Your task to perform on an android device: turn off javascript in the chrome app Image 0: 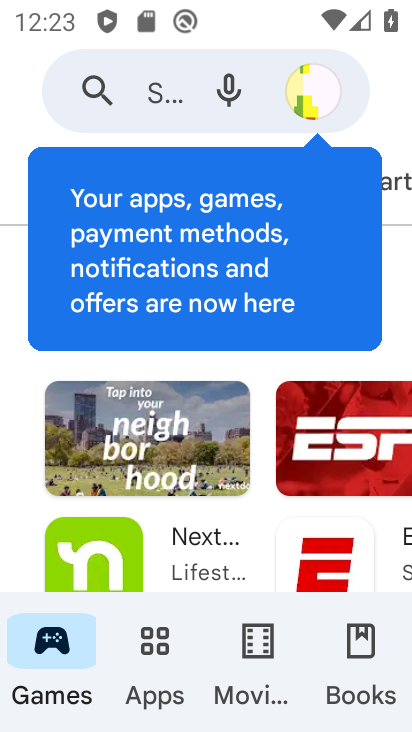
Step 0: click (326, 107)
Your task to perform on an android device: turn off javascript in the chrome app Image 1: 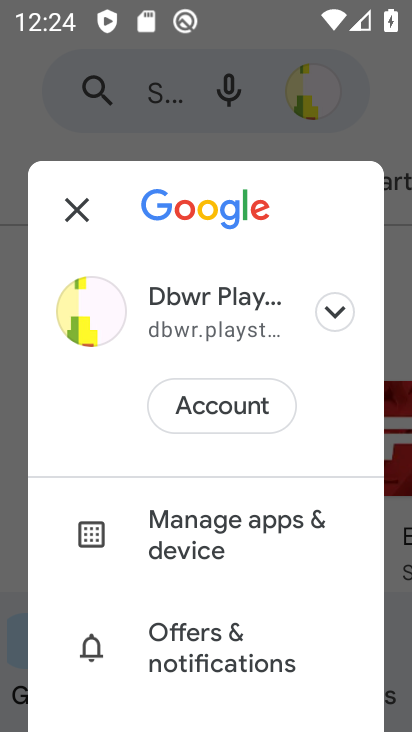
Step 1: press back button
Your task to perform on an android device: turn off javascript in the chrome app Image 2: 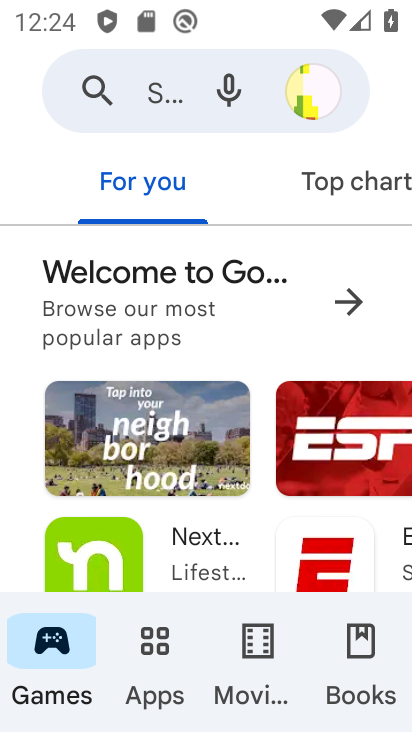
Step 2: press back button
Your task to perform on an android device: turn off javascript in the chrome app Image 3: 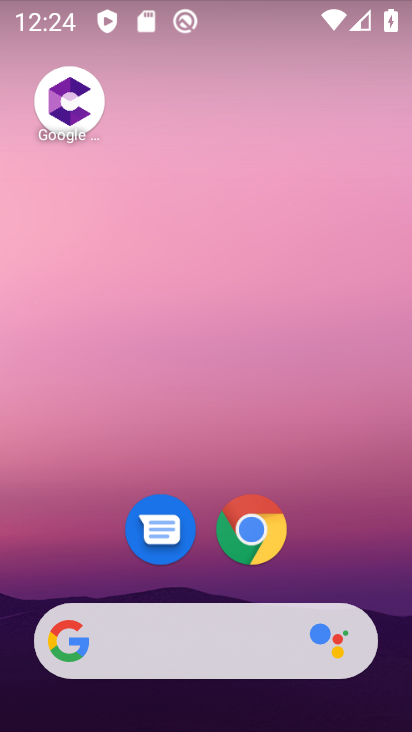
Step 3: click (255, 541)
Your task to perform on an android device: turn off javascript in the chrome app Image 4: 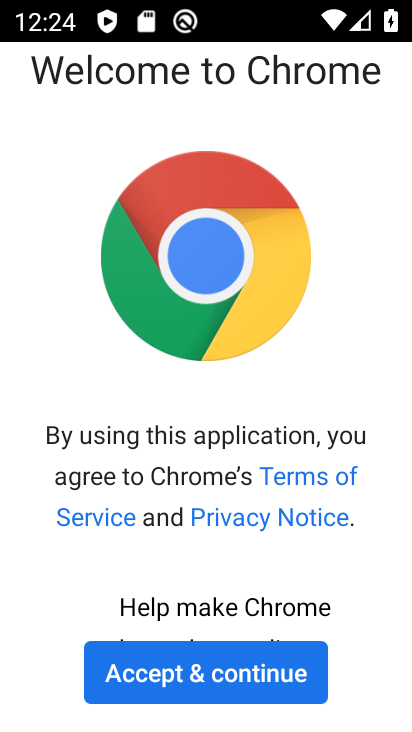
Step 4: click (182, 676)
Your task to perform on an android device: turn off javascript in the chrome app Image 5: 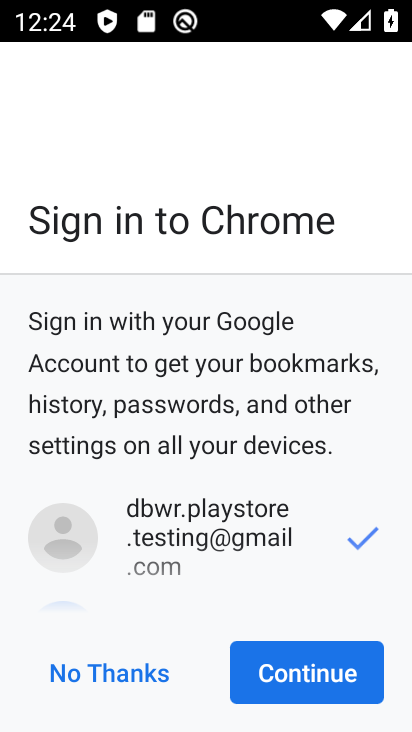
Step 5: click (282, 672)
Your task to perform on an android device: turn off javascript in the chrome app Image 6: 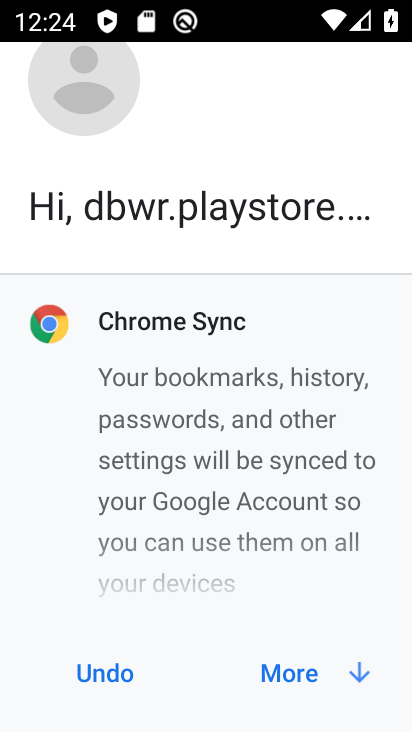
Step 6: click (270, 677)
Your task to perform on an android device: turn off javascript in the chrome app Image 7: 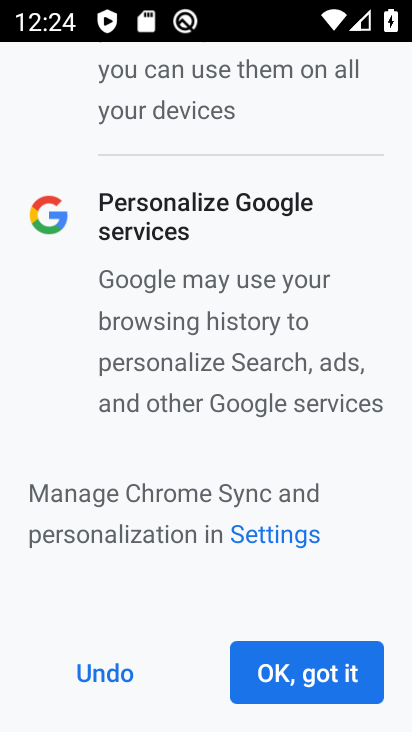
Step 7: click (270, 677)
Your task to perform on an android device: turn off javascript in the chrome app Image 8: 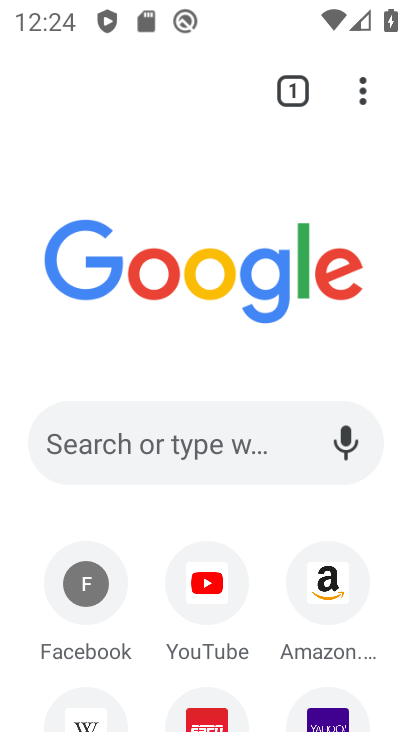
Step 8: click (361, 87)
Your task to perform on an android device: turn off javascript in the chrome app Image 9: 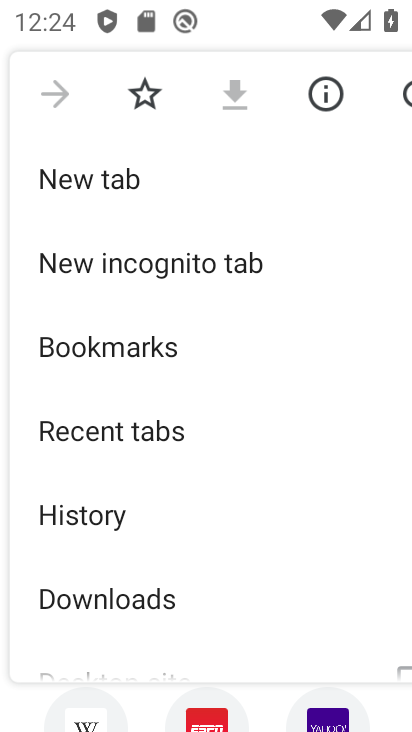
Step 9: click (123, 249)
Your task to perform on an android device: turn off javascript in the chrome app Image 10: 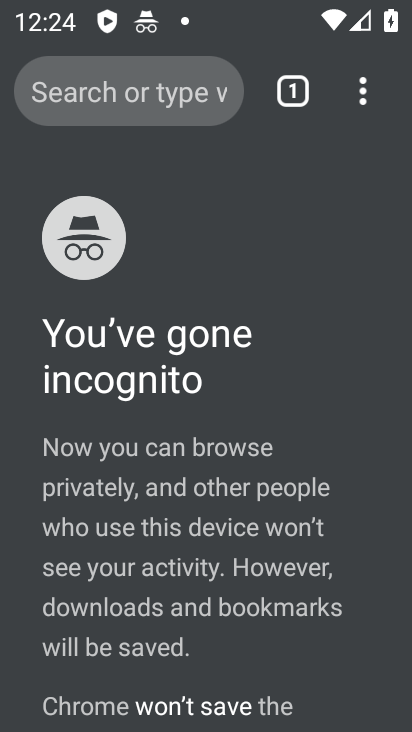
Step 10: press back button
Your task to perform on an android device: turn off javascript in the chrome app Image 11: 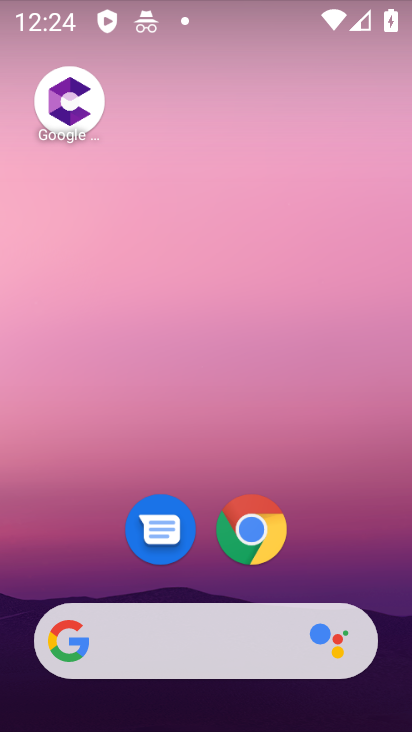
Step 11: click (238, 541)
Your task to perform on an android device: turn off javascript in the chrome app Image 12: 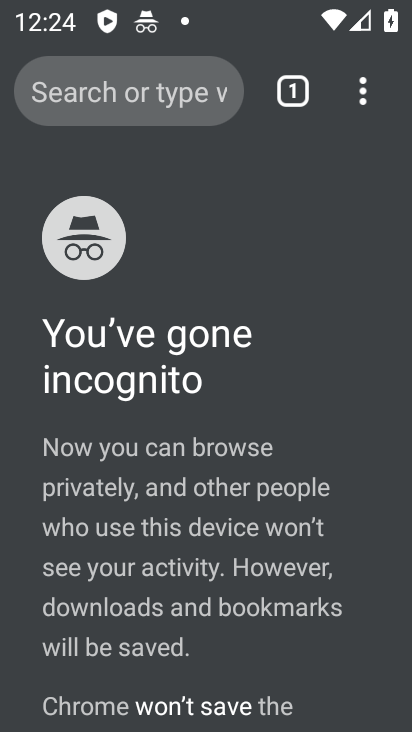
Step 12: click (298, 87)
Your task to perform on an android device: turn off javascript in the chrome app Image 13: 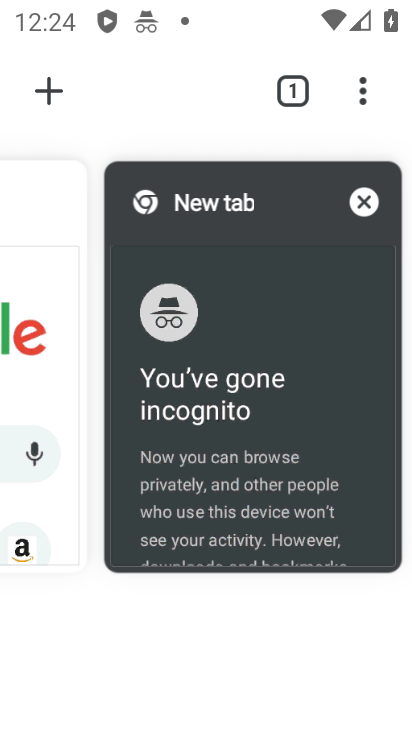
Step 13: click (36, 98)
Your task to perform on an android device: turn off javascript in the chrome app Image 14: 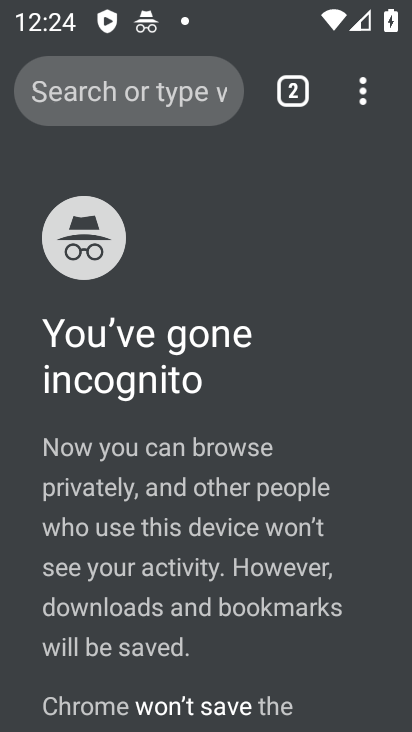
Step 14: click (290, 97)
Your task to perform on an android device: turn off javascript in the chrome app Image 15: 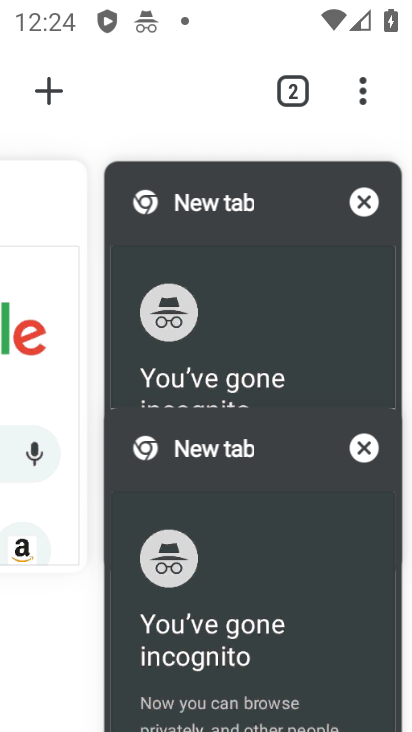
Step 15: click (370, 207)
Your task to perform on an android device: turn off javascript in the chrome app Image 16: 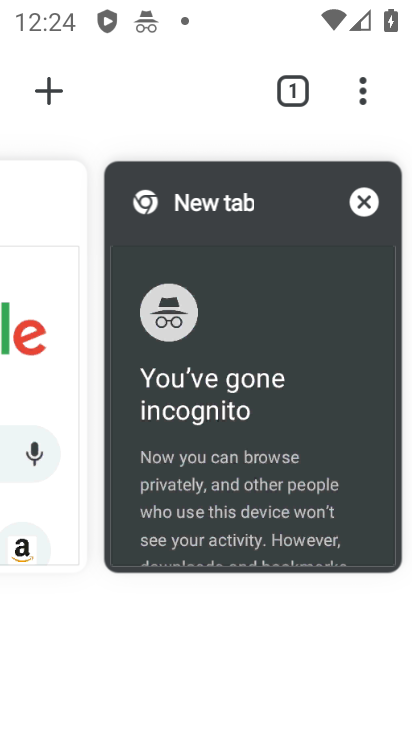
Step 16: click (373, 211)
Your task to perform on an android device: turn off javascript in the chrome app Image 17: 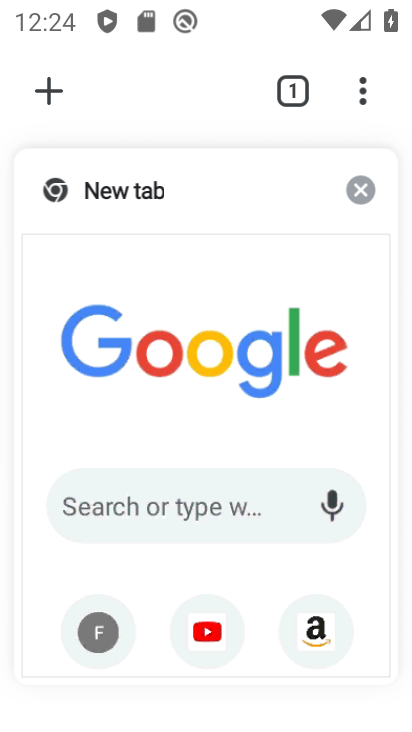
Step 17: click (144, 182)
Your task to perform on an android device: turn off javascript in the chrome app Image 18: 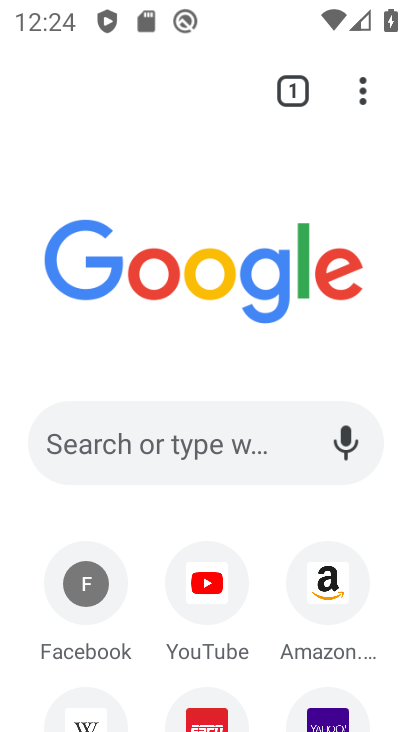
Step 18: click (363, 105)
Your task to perform on an android device: turn off javascript in the chrome app Image 19: 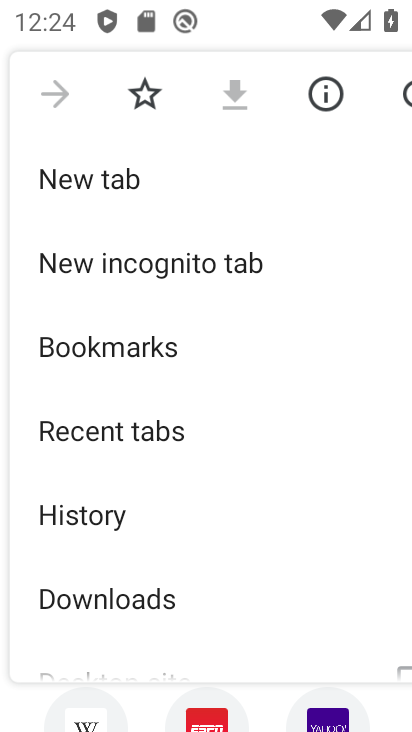
Step 19: drag from (169, 559) to (140, 222)
Your task to perform on an android device: turn off javascript in the chrome app Image 20: 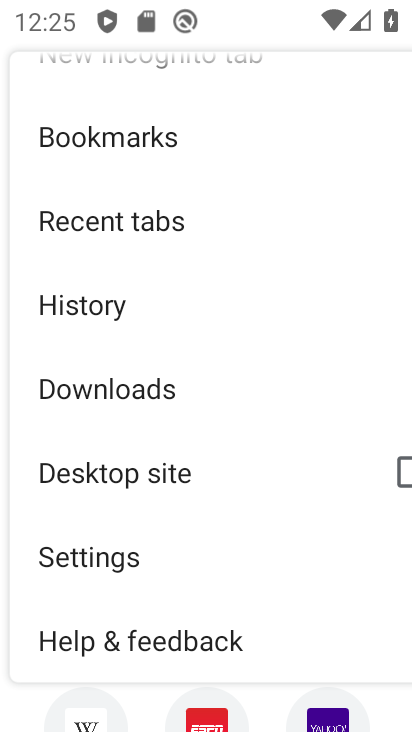
Step 20: click (90, 563)
Your task to perform on an android device: turn off javascript in the chrome app Image 21: 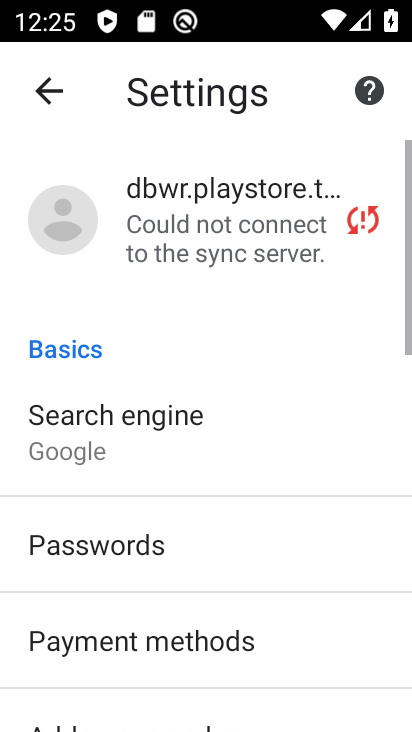
Step 21: drag from (131, 622) to (170, 185)
Your task to perform on an android device: turn off javascript in the chrome app Image 22: 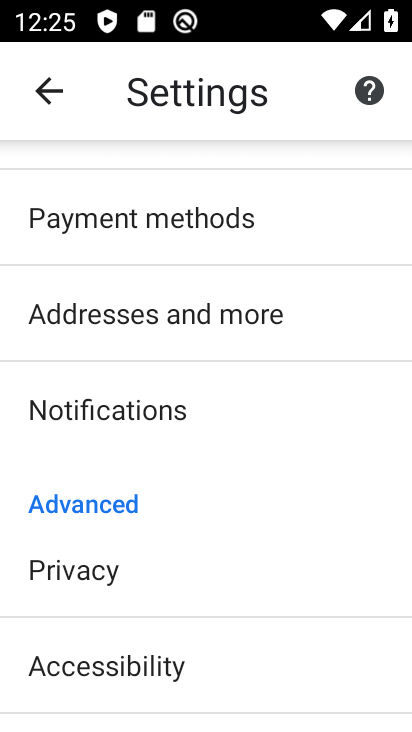
Step 22: drag from (199, 623) to (231, 292)
Your task to perform on an android device: turn off javascript in the chrome app Image 23: 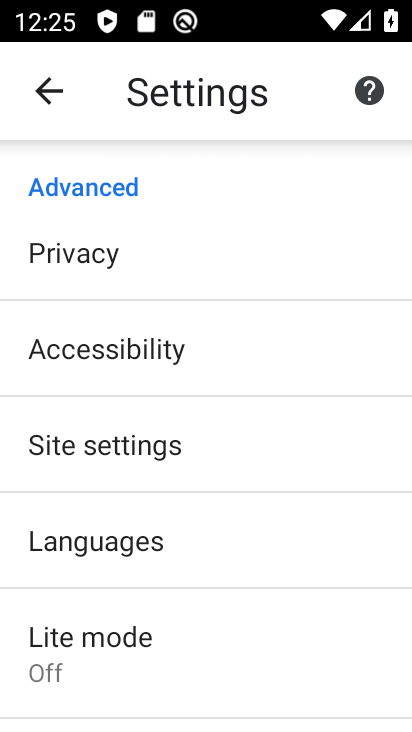
Step 23: click (109, 452)
Your task to perform on an android device: turn off javascript in the chrome app Image 24: 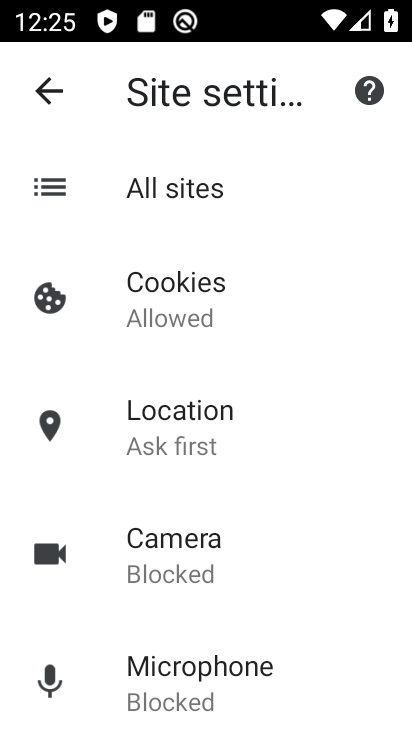
Step 24: drag from (185, 621) to (173, 309)
Your task to perform on an android device: turn off javascript in the chrome app Image 25: 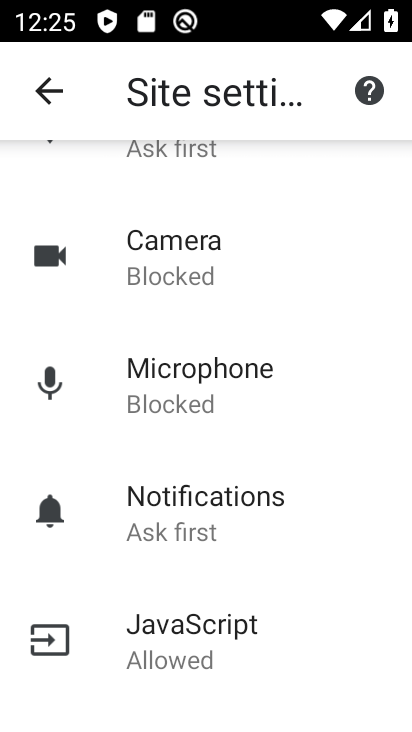
Step 25: click (175, 651)
Your task to perform on an android device: turn off javascript in the chrome app Image 26: 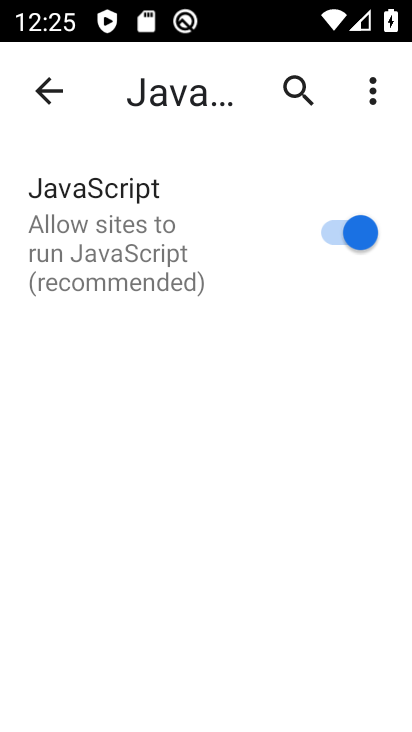
Step 26: click (337, 227)
Your task to perform on an android device: turn off javascript in the chrome app Image 27: 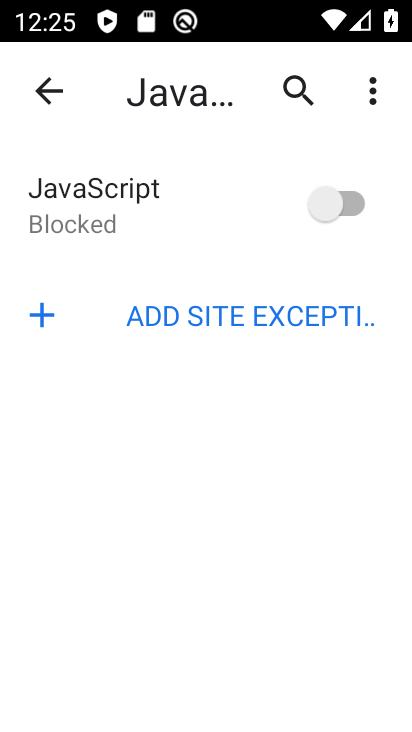
Step 27: task complete